Your task to perform on an android device: turn on airplane mode Image 0: 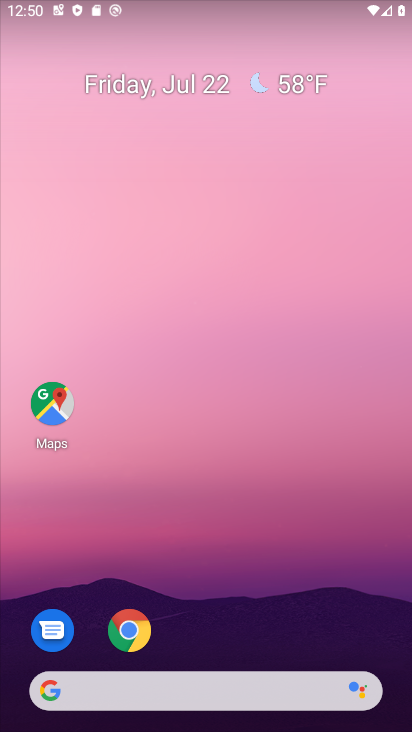
Step 0: press home button
Your task to perform on an android device: turn on airplane mode Image 1: 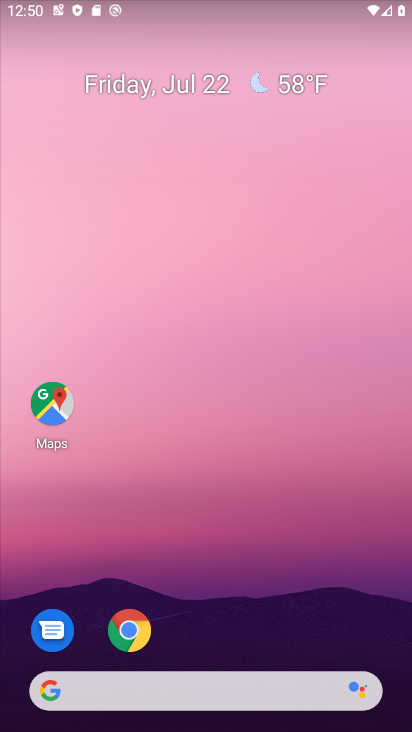
Step 1: drag from (319, 13) to (305, 481)
Your task to perform on an android device: turn on airplane mode Image 2: 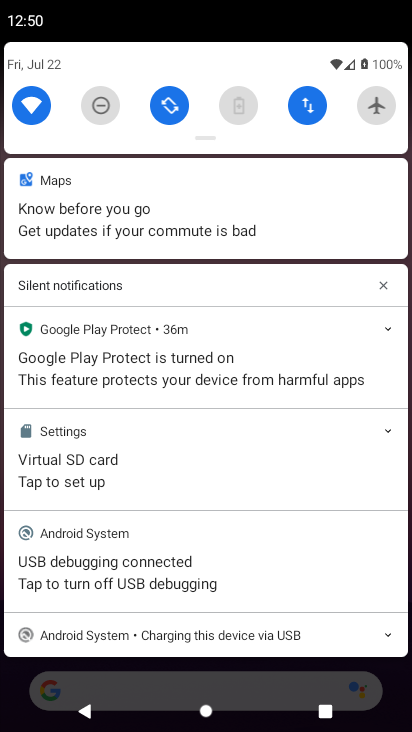
Step 2: click (376, 106)
Your task to perform on an android device: turn on airplane mode Image 3: 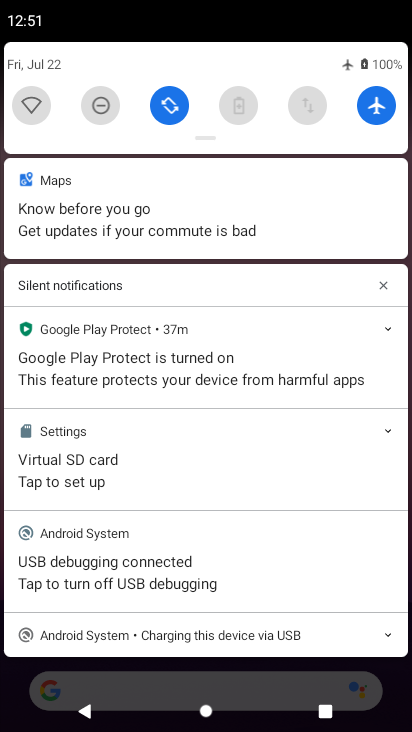
Step 3: task complete